Your task to perform on an android device: turn on translation in the chrome app Image 0: 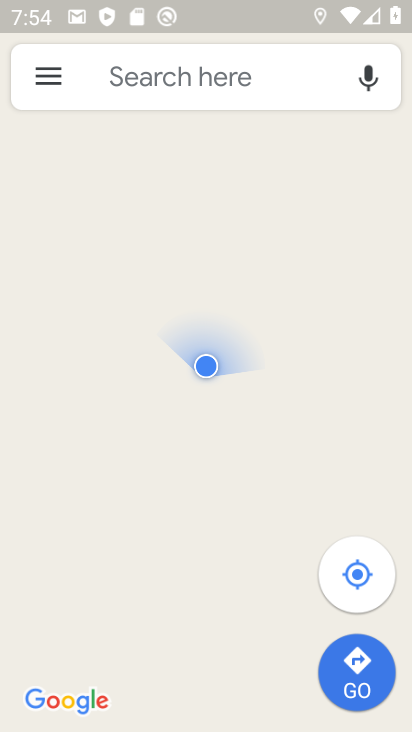
Step 0: press home button
Your task to perform on an android device: turn on translation in the chrome app Image 1: 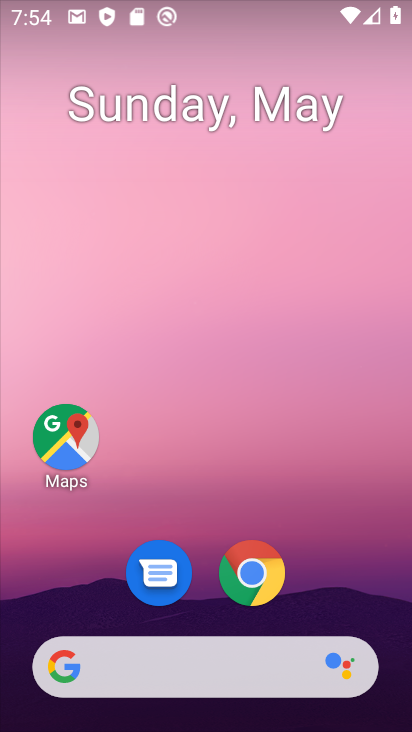
Step 1: click (252, 569)
Your task to perform on an android device: turn on translation in the chrome app Image 2: 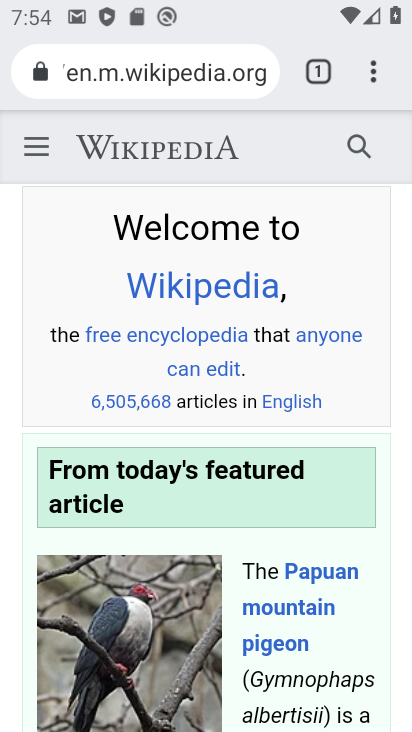
Step 2: click (372, 78)
Your task to perform on an android device: turn on translation in the chrome app Image 3: 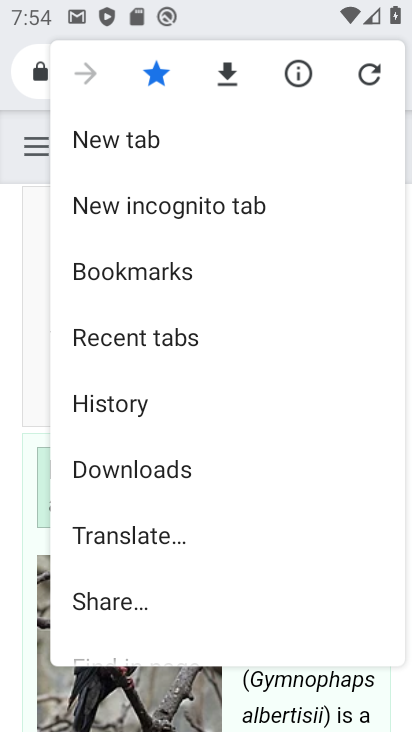
Step 3: drag from (244, 494) to (265, 80)
Your task to perform on an android device: turn on translation in the chrome app Image 4: 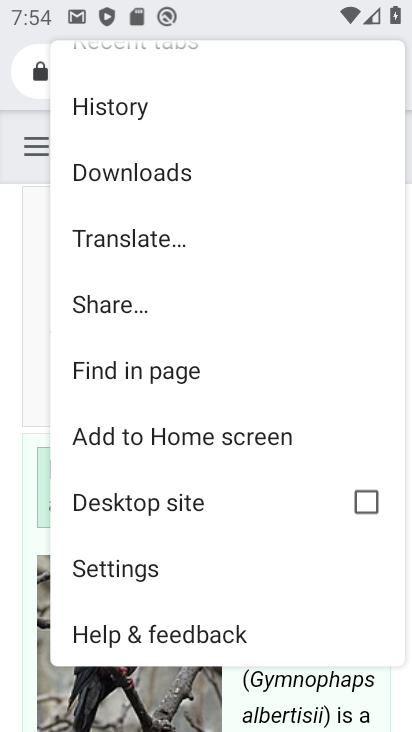
Step 4: click (166, 563)
Your task to perform on an android device: turn on translation in the chrome app Image 5: 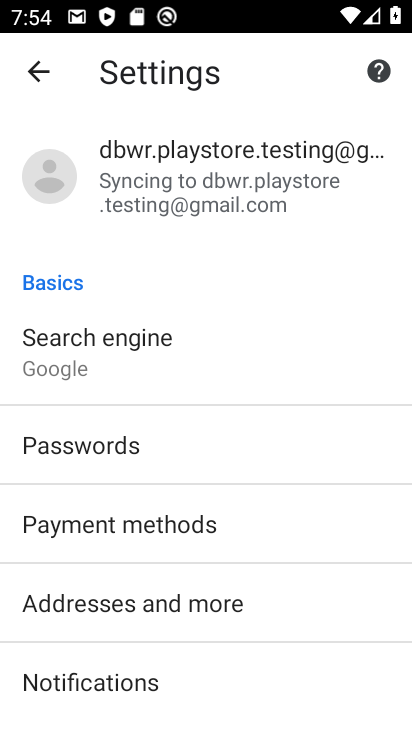
Step 5: drag from (283, 644) to (317, 53)
Your task to perform on an android device: turn on translation in the chrome app Image 6: 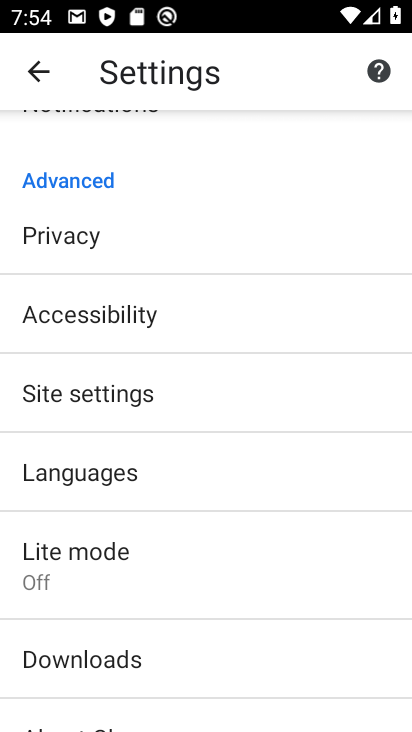
Step 6: click (226, 469)
Your task to perform on an android device: turn on translation in the chrome app Image 7: 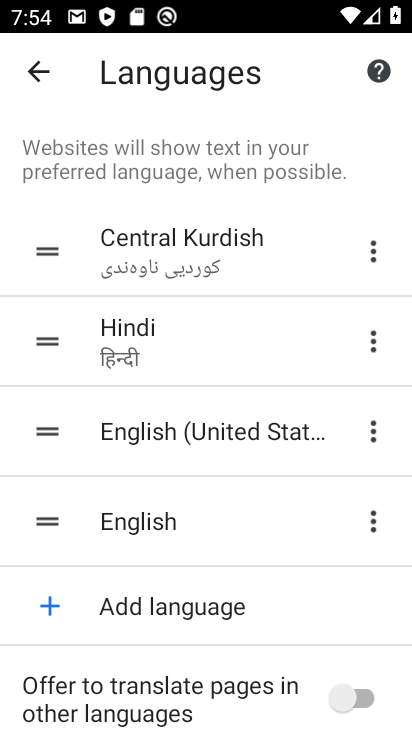
Step 7: click (363, 693)
Your task to perform on an android device: turn on translation in the chrome app Image 8: 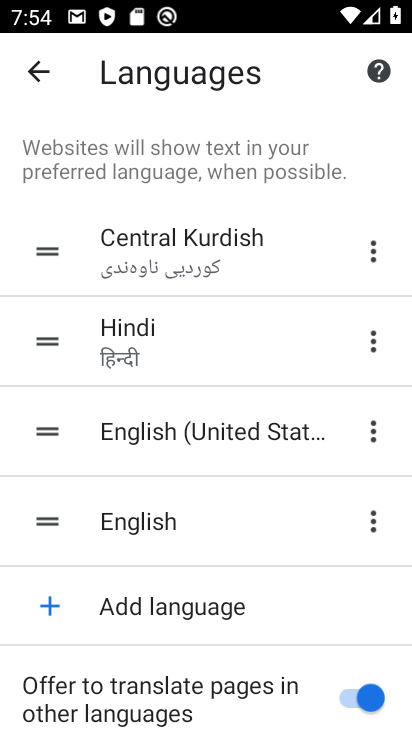
Step 8: task complete